Your task to perform on an android device: Go to accessibility settings Image 0: 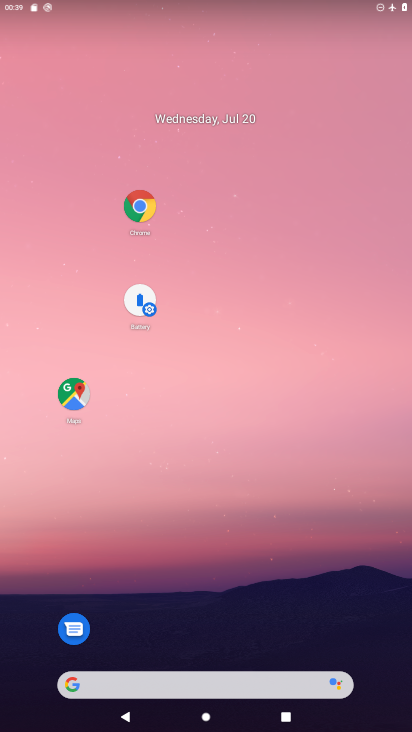
Step 0: drag from (215, 521) to (240, 124)
Your task to perform on an android device: Go to accessibility settings Image 1: 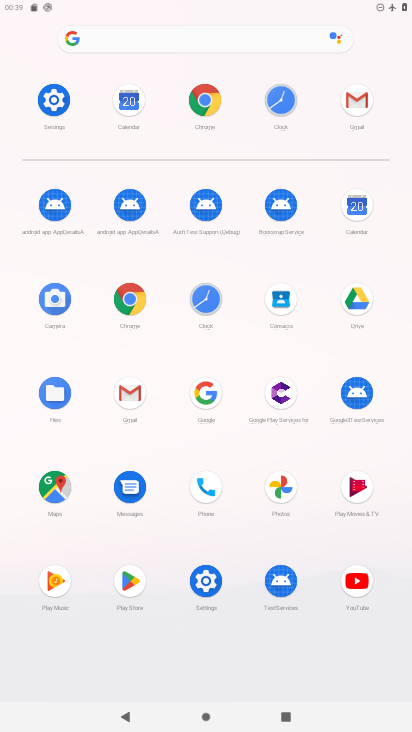
Step 1: click (201, 582)
Your task to perform on an android device: Go to accessibility settings Image 2: 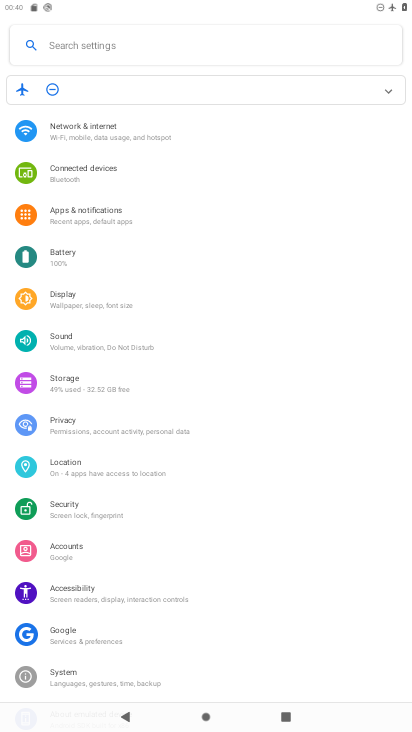
Step 2: click (94, 604)
Your task to perform on an android device: Go to accessibility settings Image 3: 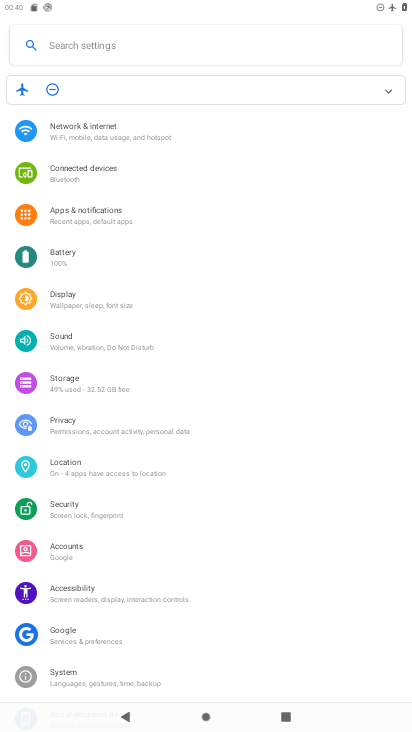
Step 3: click (93, 603)
Your task to perform on an android device: Go to accessibility settings Image 4: 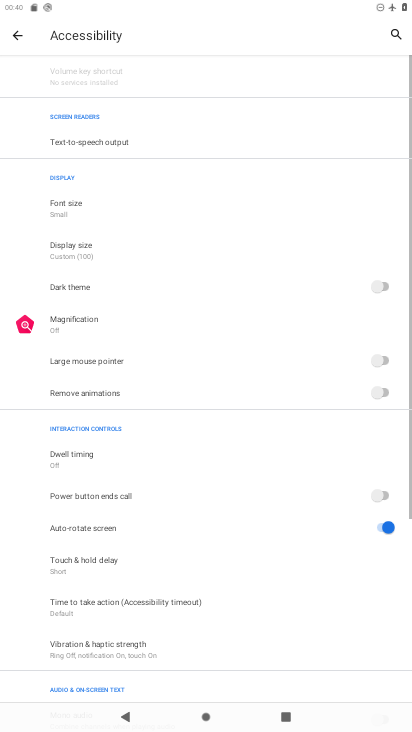
Step 4: task complete